Your task to perform on an android device: see sites visited before in the chrome app Image 0: 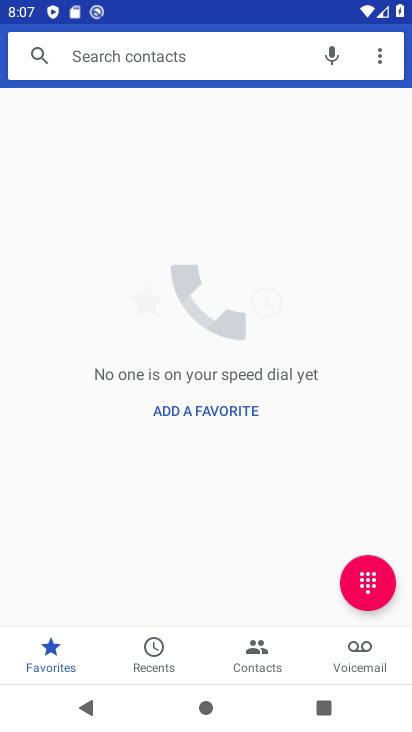
Step 0: press home button
Your task to perform on an android device: see sites visited before in the chrome app Image 1: 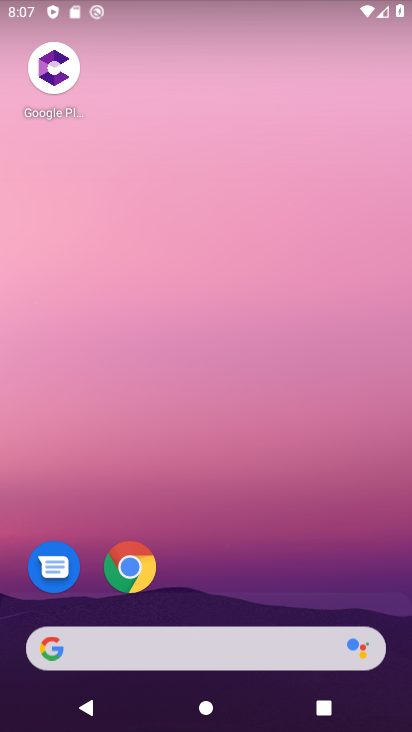
Step 1: click (135, 569)
Your task to perform on an android device: see sites visited before in the chrome app Image 2: 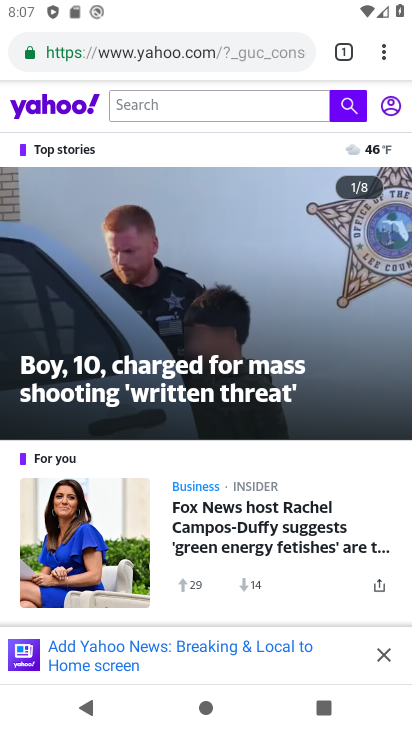
Step 2: click (394, 59)
Your task to perform on an android device: see sites visited before in the chrome app Image 3: 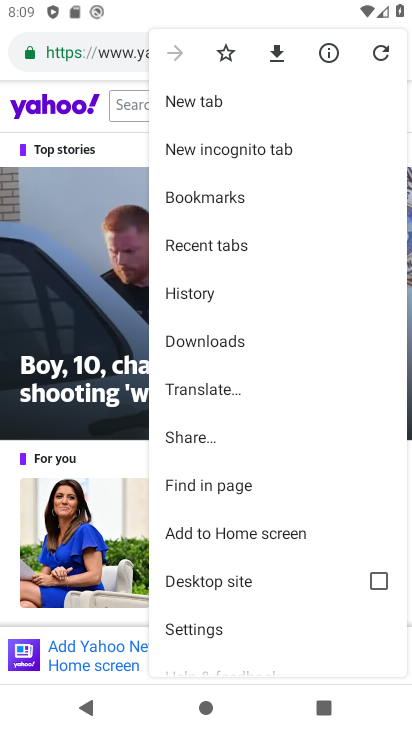
Step 3: click (197, 291)
Your task to perform on an android device: see sites visited before in the chrome app Image 4: 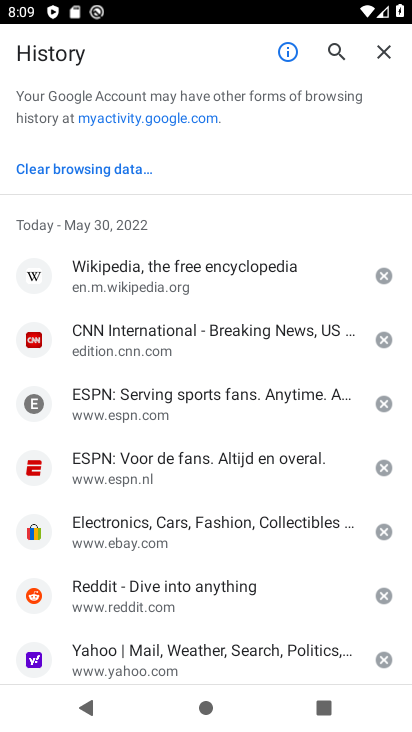
Step 4: task complete